Your task to perform on an android device: change keyboard looks Image 0: 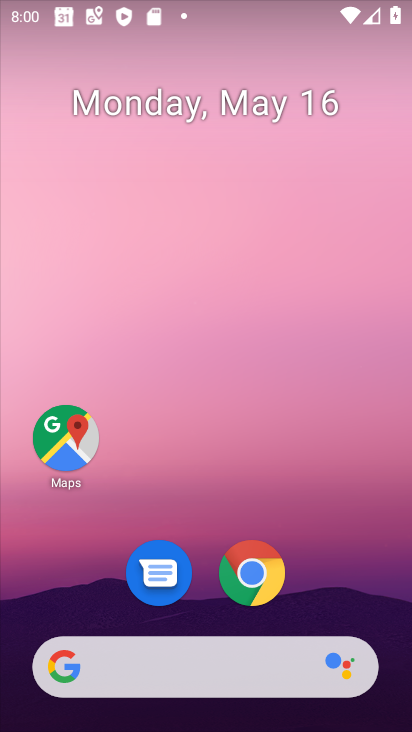
Step 0: drag from (364, 599) to (332, 137)
Your task to perform on an android device: change keyboard looks Image 1: 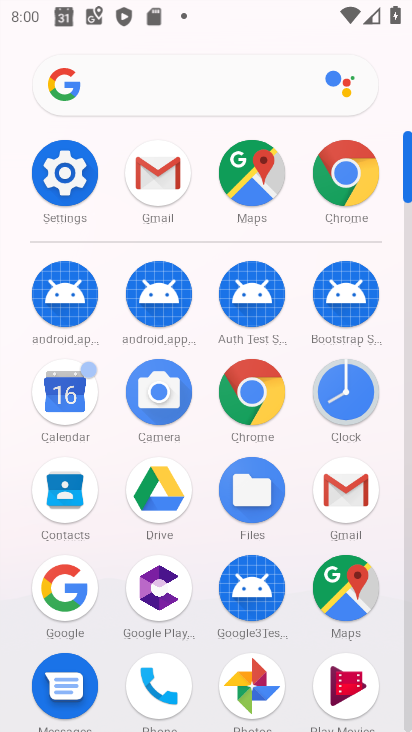
Step 1: click (68, 185)
Your task to perform on an android device: change keyboard looks Image 2: 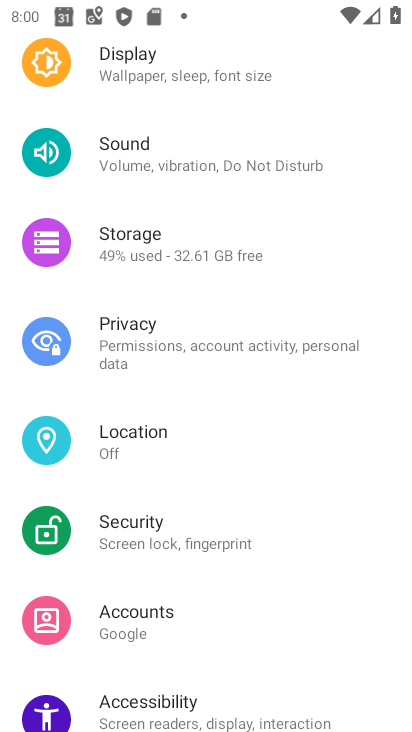
Step 2: drag from (149, 626) to (233, 159)
Your task to perform on an android device: change keyboard looks Image 3: 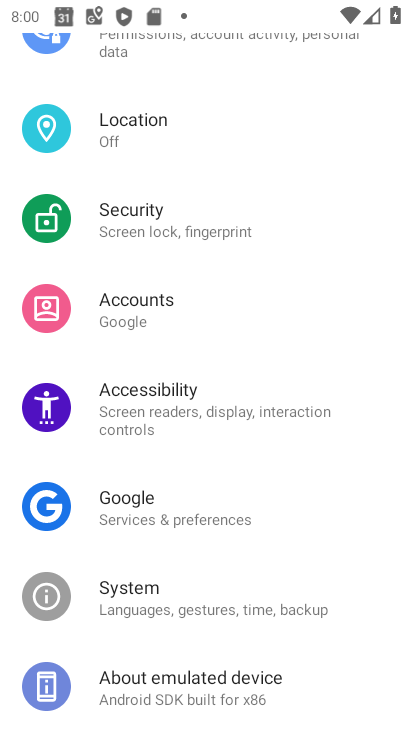
Step 3: drag from (205, 590) to (245, 197)
Your task to perform on an android device: change keyboard looks Image 4: 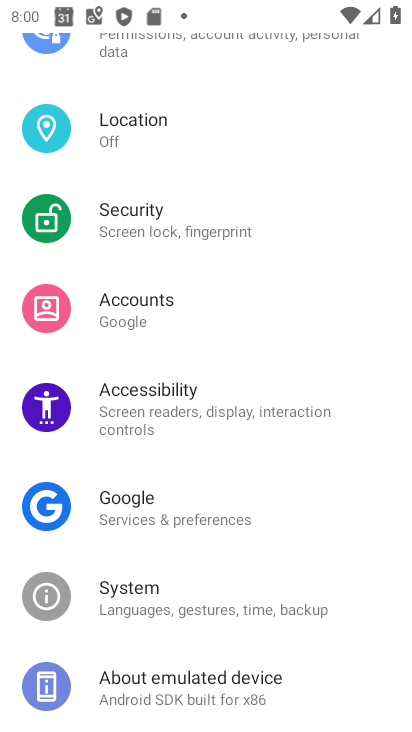
Step 4: click (190, 604)
Your task to perform on an android device: change keyboard looks Image 5: 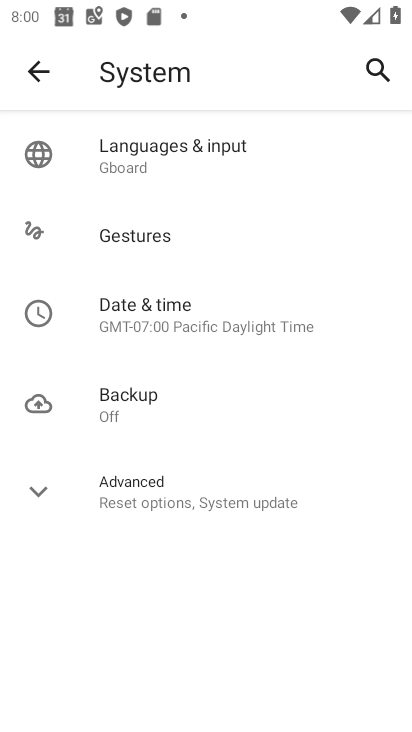
Step 5: click (195, 156)
Your task to perform on an android device: change keyboard looks Image 6: 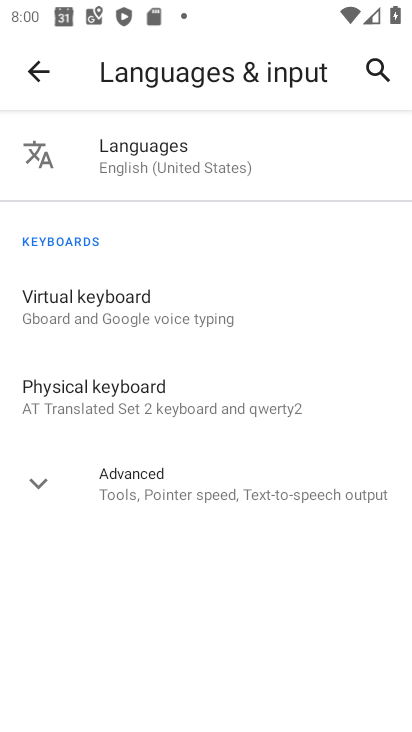
Step 6: click (156, 323)
Your task to perform on an android device: change keyboard looks Image 7: 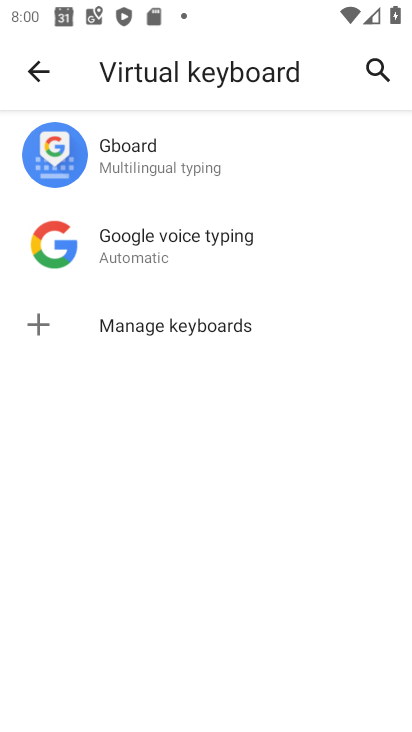
Step 7: click (102, 147)
Your task to perform on an android device: change keyboard looks Image 8: 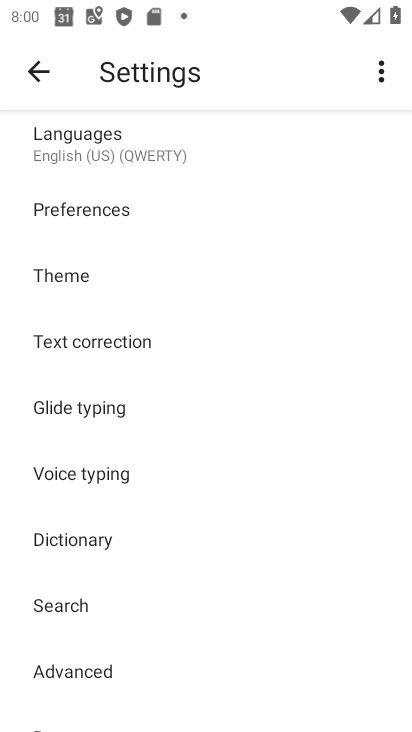
Step 8: click (83, 289)
Your task to perform on an android device: change keyboard looks Image 9: 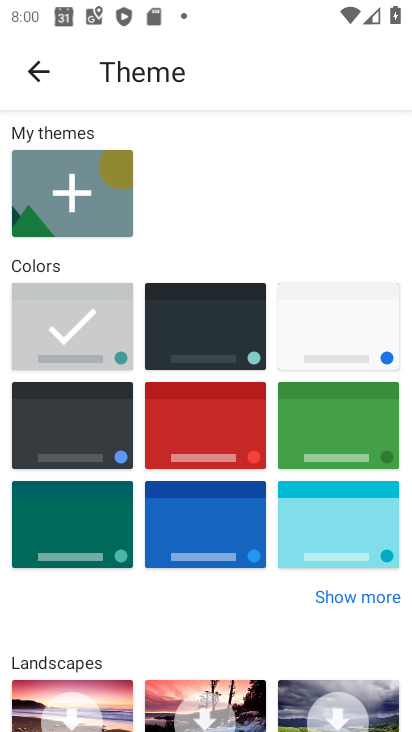
Step 9: click (188, 334)
Your task to perform on an android device: change keyboard looks Image 10: 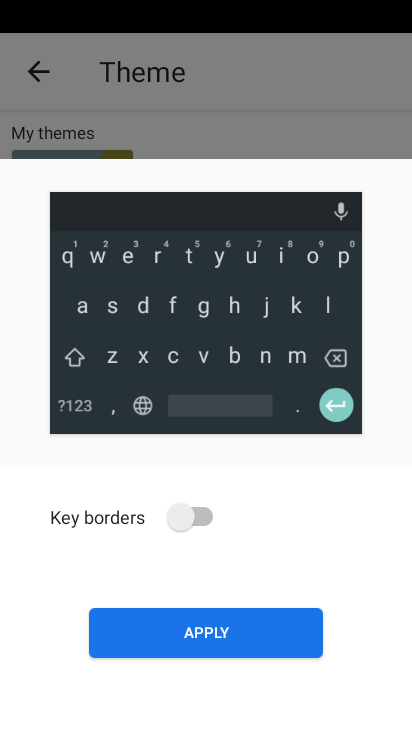
Step 10: click (243, 639)
Your task to perform on an android device: change keyboard looks Image 11: 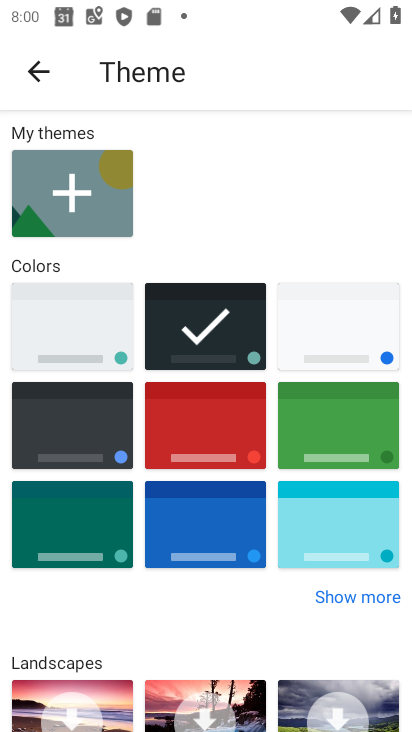
Step 11: task complete